Your task to perform on an android device: set an alarm Image 0: 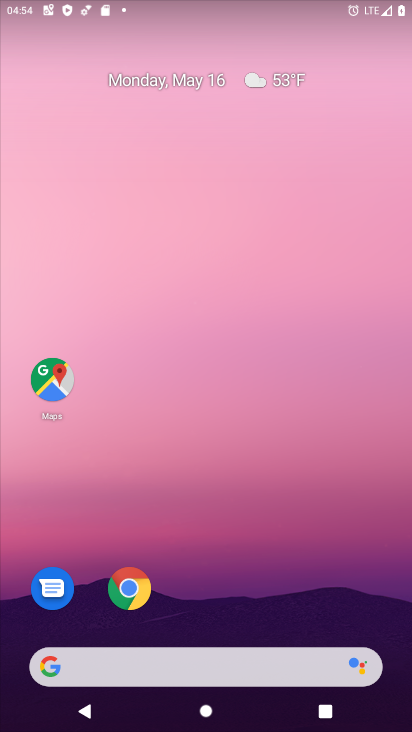
Step 0: drag from (324, 562) to (248, 29)
Your task to perform on an android device: set an alarm Image 1: 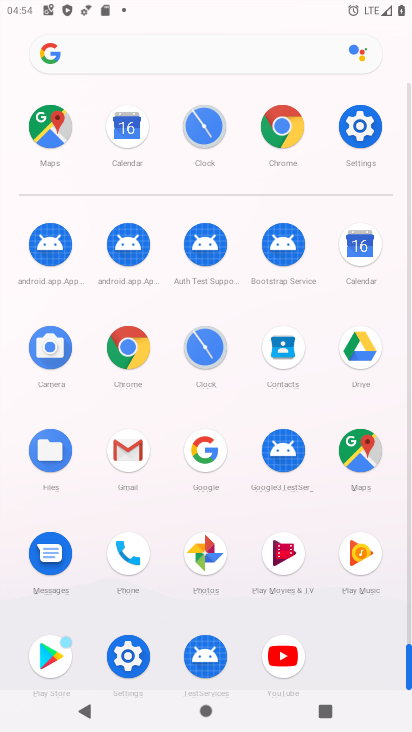
Step 1: drag from (23, 517) to (7, 260)
Your task to perform on an android device: set an alarm Image 2: 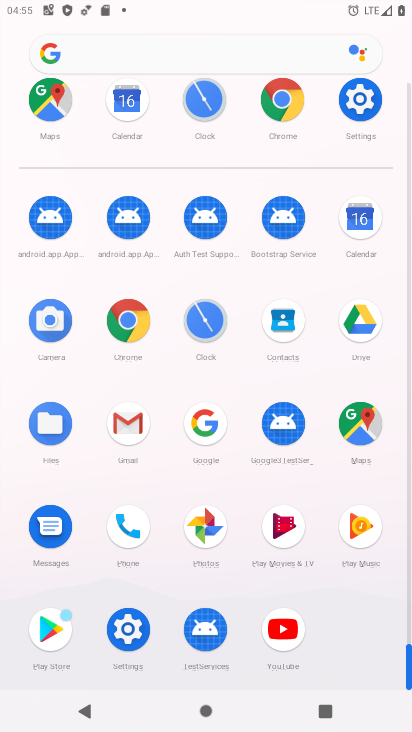
Step 2: click (203, 316)
Your task to perform on an android device: set an alarm Image 3: 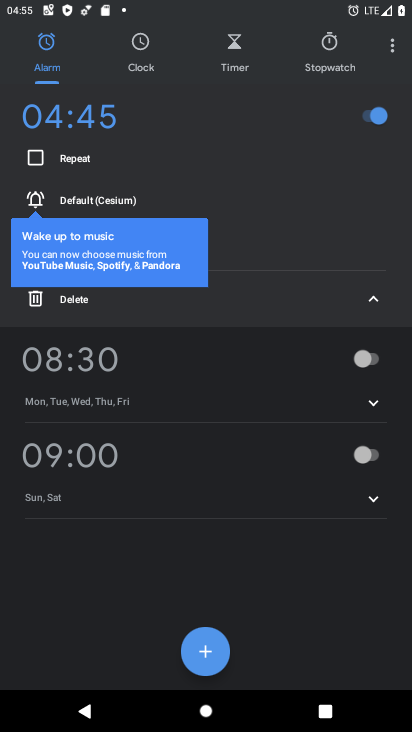
Step 3: click (207, 652)
Your task to perform on an android device: set an alarm Image 4: 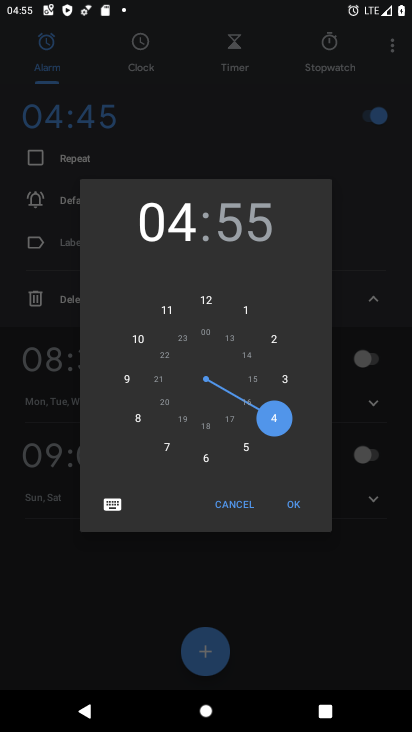
Step 4: click (171, 446)
Your task to perform on an android device: set an alarm Image 5: 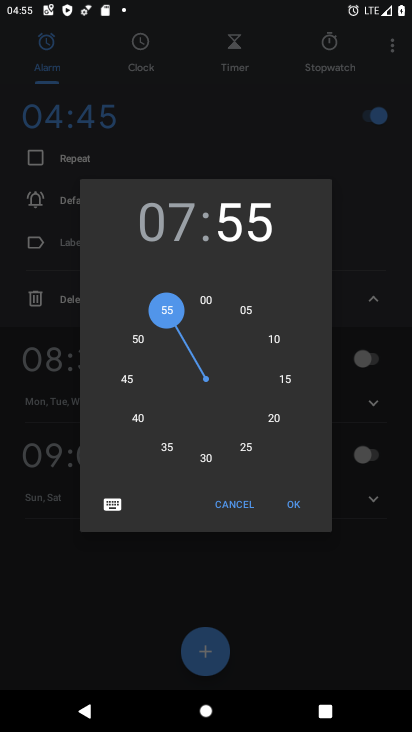
Step 5: click (225, 304)
Your task to perform on an android device: set an alarm Image 6: 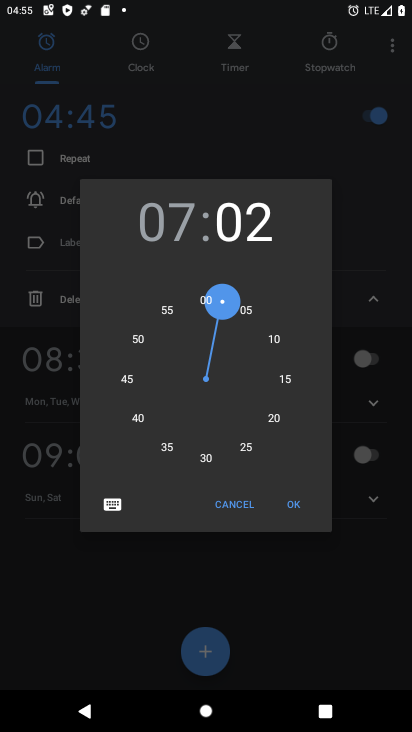
Step 6: click (296, 502)
Your task to perform on an android device: set an alarm Image 7: 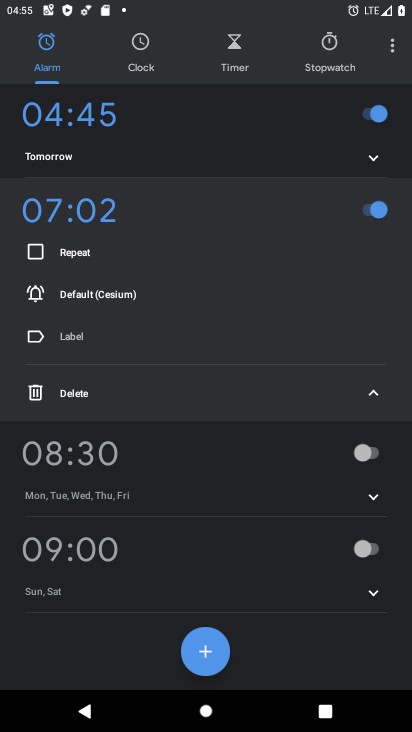
Step 7: task complete